Your task to perform on an android device: open the mobile data screen to see how much data has been used Image 0: 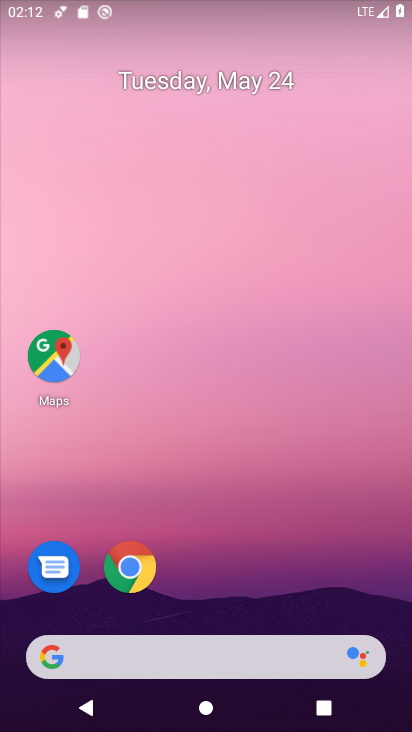
Step 0: drag from (192, 596) to (255, 213)
Your task to perform on an android device: open the mobile data screen to see how much data has been used Image 1: 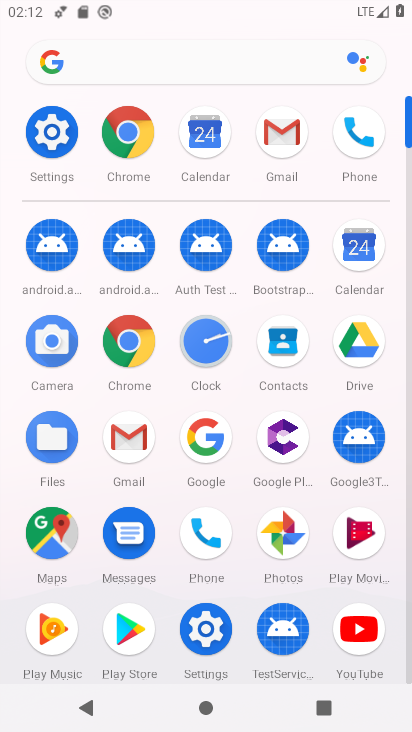
Step 1: click (37, 136)
Your task to perform on an android device: open the mobile data screen to see how much data has been used Image 2: 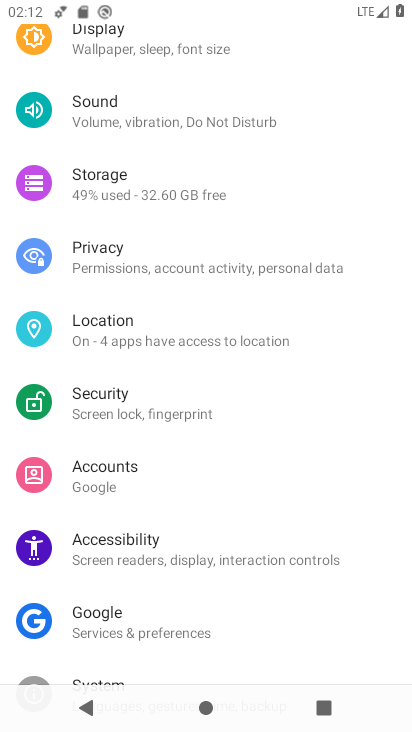
Step 2: drag from (182, 155) to (170, 462)
Your task to perform on an android device: open the mobile data screen to see how much data has been used Image 3: 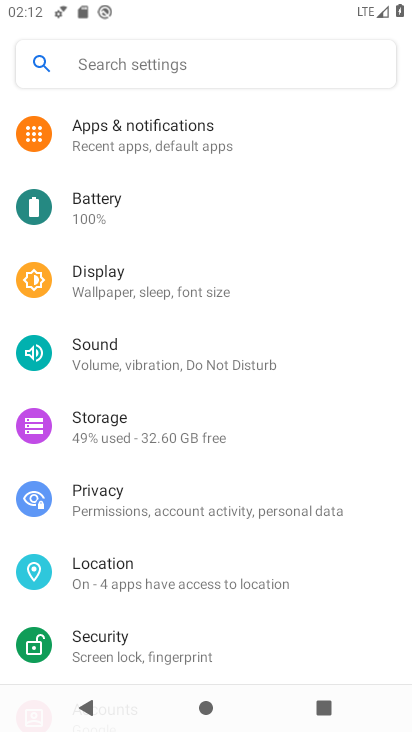
Step 3: drag from (198, 212) to (194, 629)
Your task to perform on an android device: open the mobile data screen to see how much data has been used Image 4: 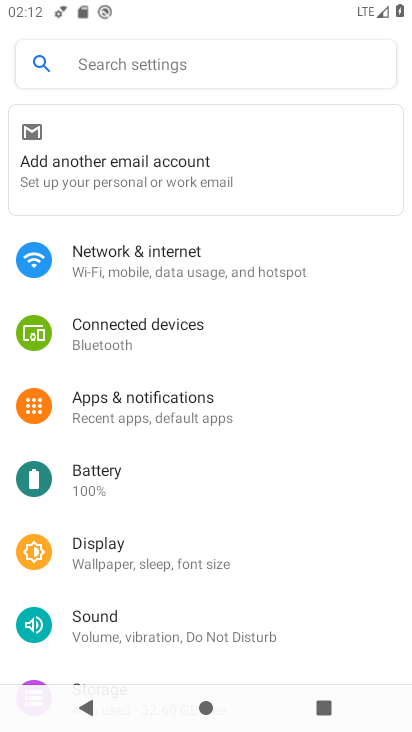
Step 4: click (166, 267)
Your task to perform on an android device: open the mobile data screen to see how much data has been used Image 5: 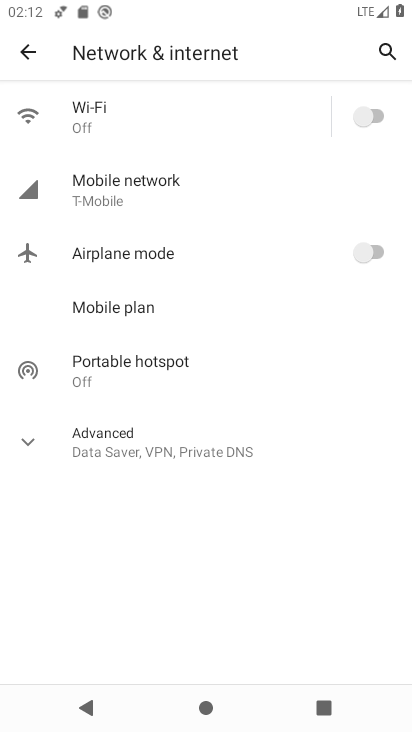
Step 5: click (165, 194)
Your task to perform on an android device: open the mobile data screen to see how much data has been used Image 6: 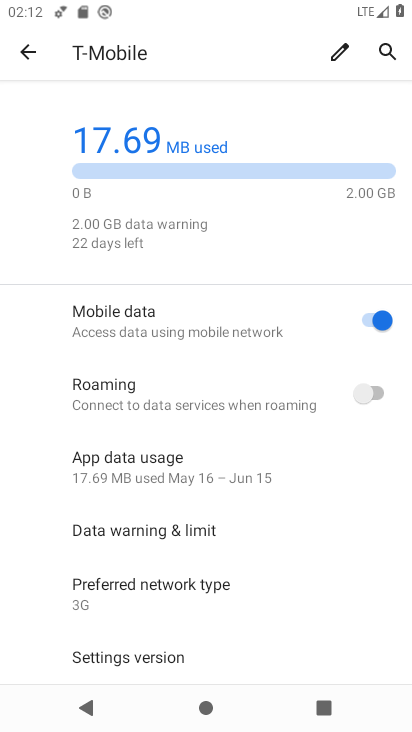
Step 6: click (181, 475)
Your task to perform on an android device: open the mobile data screen to see how much data has been used Image 7: 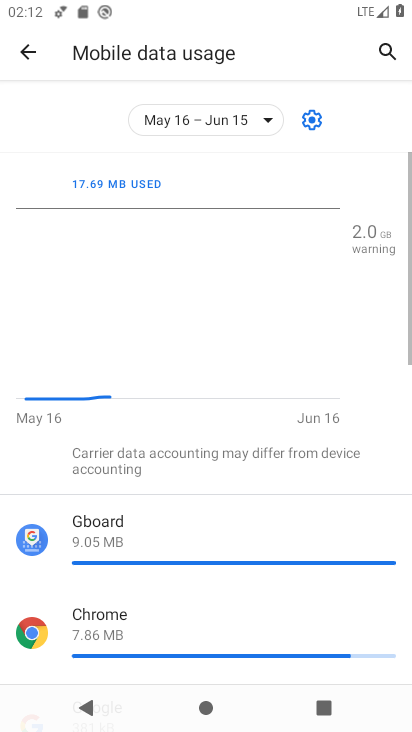
Step 7: task complete